Your task to perform on an android device: Open battery settings Image 0: 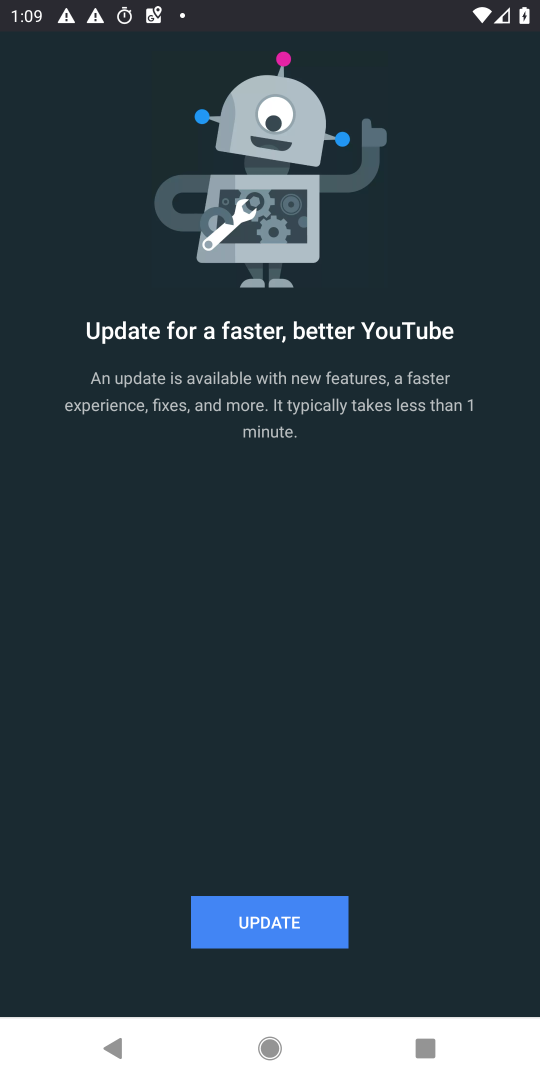
Step 0: press home button
Your task to perform on an android device: Open battery settings Image 1: 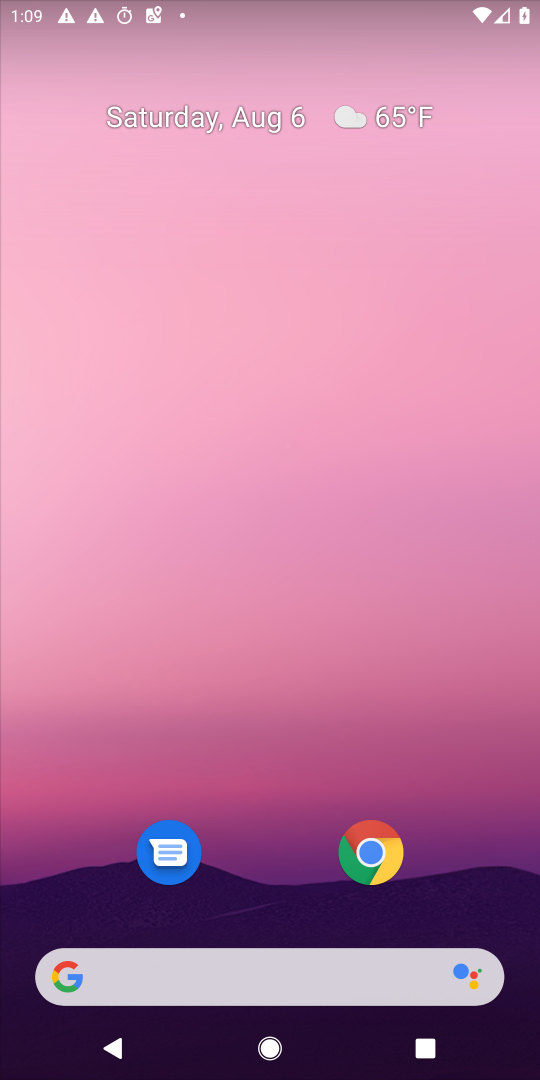
Step 1: drag from (362, 1002) to (372, 348)
Your task to perform on an android device: Open battery settings Image 2: 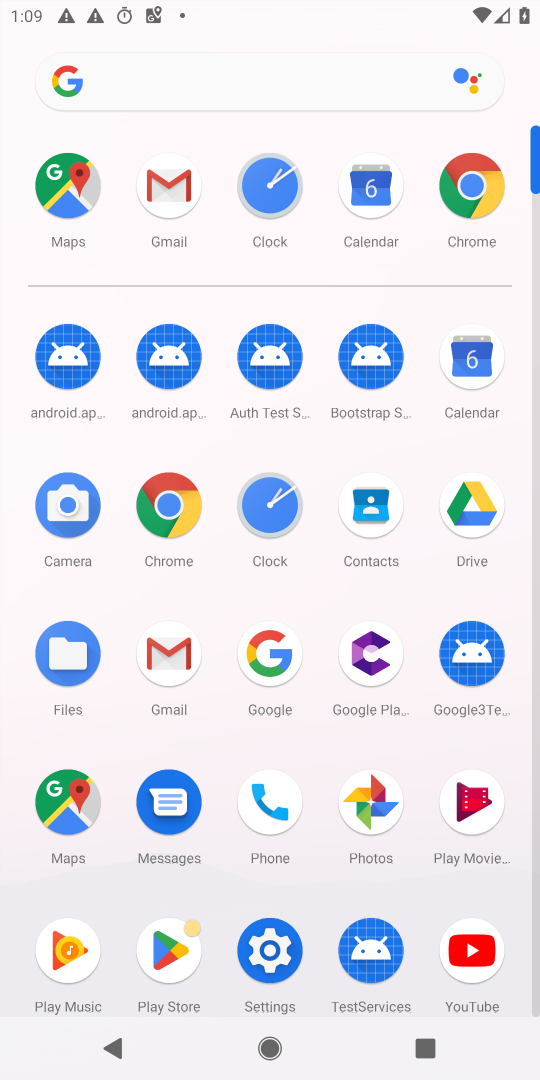
Step 2: click (253, 936)
Your task to perform on an android device: Open battery settings Image 3: 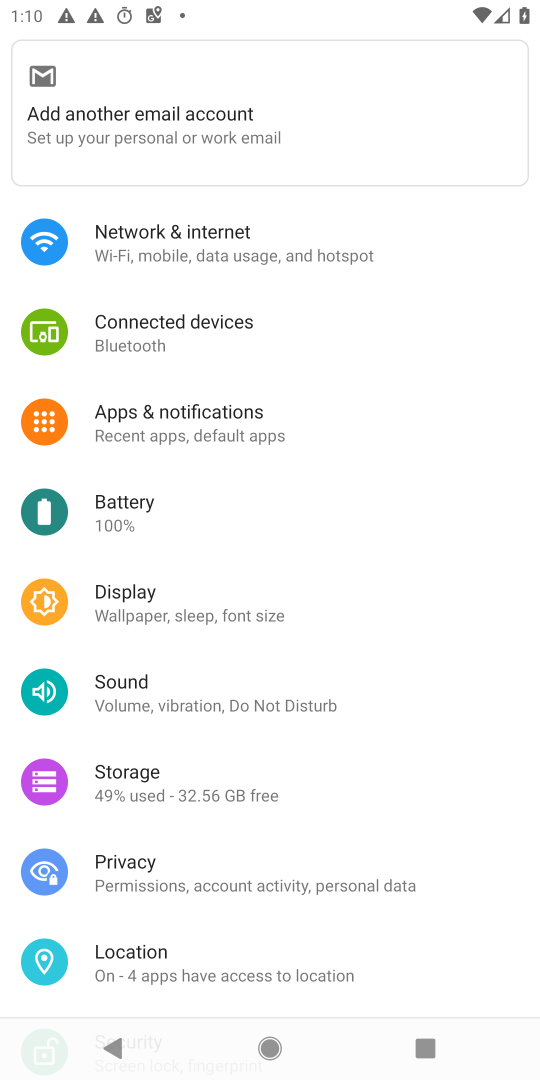
Step 3: click (167, 526)
Your task to perform on an android device: Open battery settings Image 4: 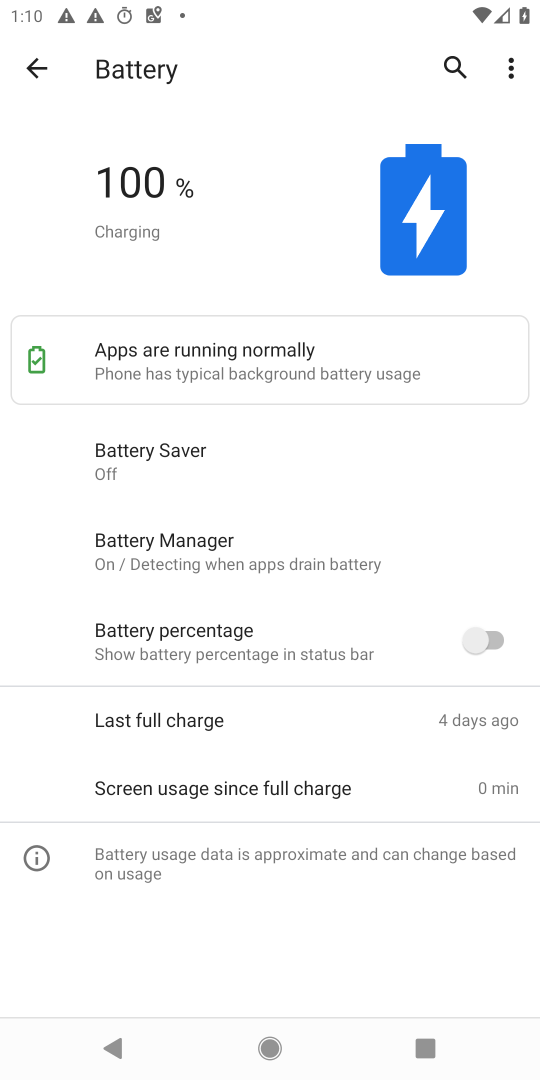
Step 4: task complete